Your task to perform on an android device: see tabs open on other devices in the chrome app Image 0: 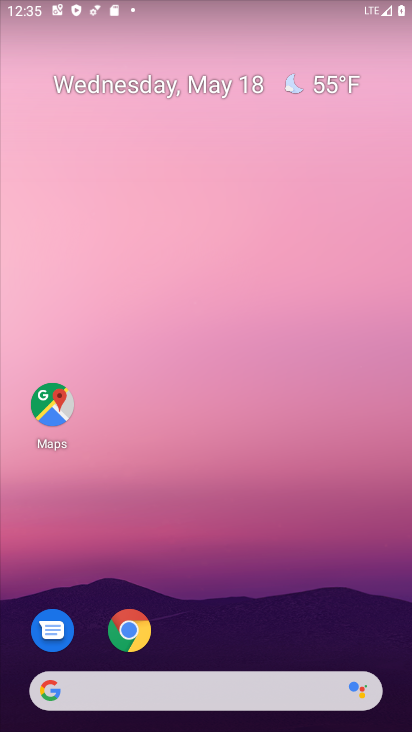
Step 0: click (136, 645)
Your task to perform on an android device: see tabs open on other devices in the chrome app Image 1: 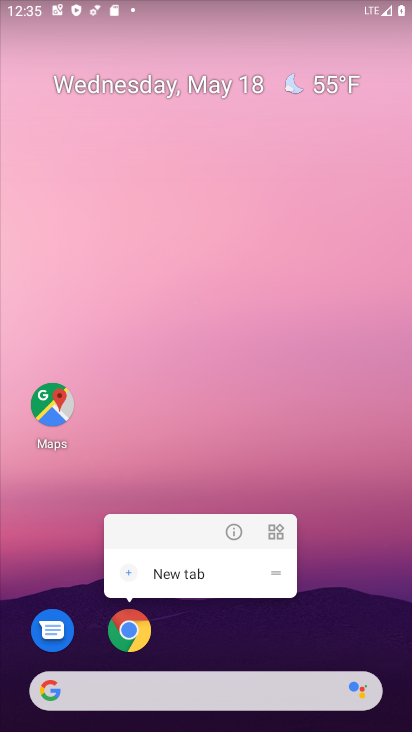
Step 1: click (129, 630)
Your task to perform on an android device: see tabs open on other devices in the chrome app Image 2: 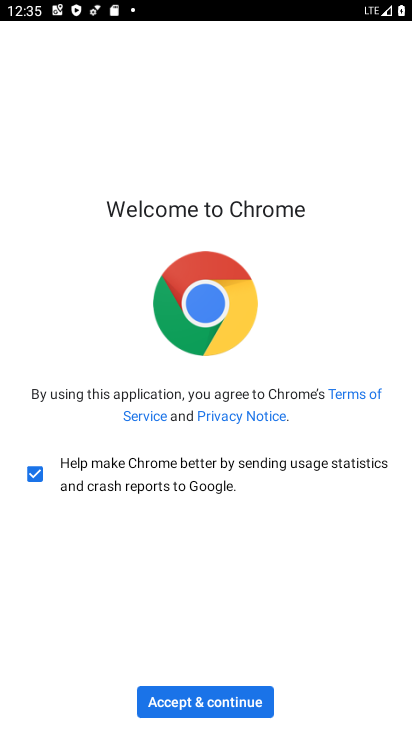
Step 2: click (227, 706)
Your task to perform on an android device: see tabs open on other devices in the chrome app Image 3: 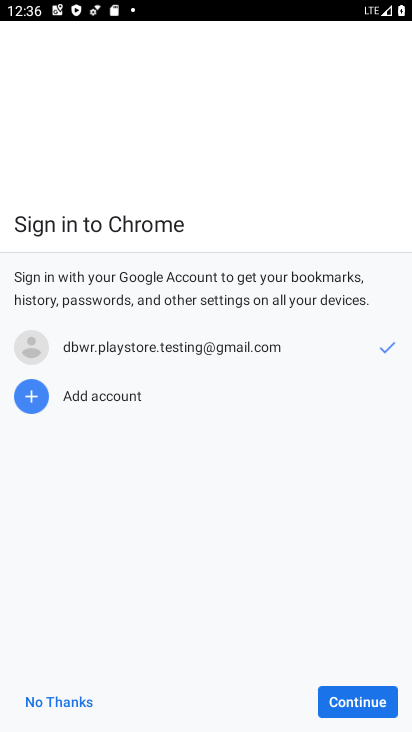
Step 3: click (370, 708)
Your task to perform on an android device: see tabs open on other devices in the chrome app Image 4: 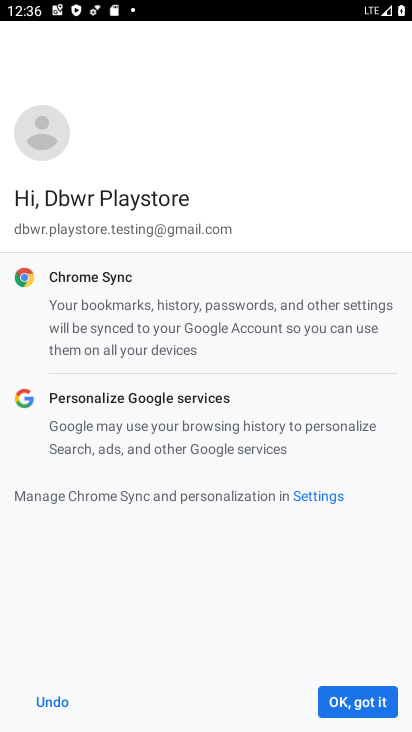
Step 4: click (370, 708)
Your task to perform on an android device: see tabs open on other devices in the chrome app Image 5: 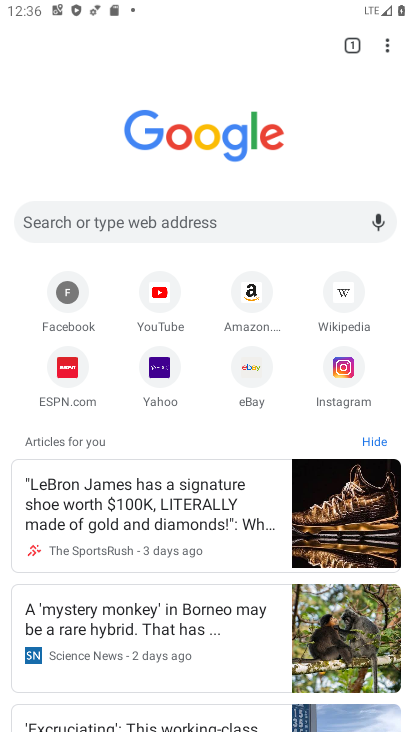
Step 5: drag from (389, 47) to (325, 228)
Your task to perform on an android device: see tabs open on other devices in the chrome app Image 6: 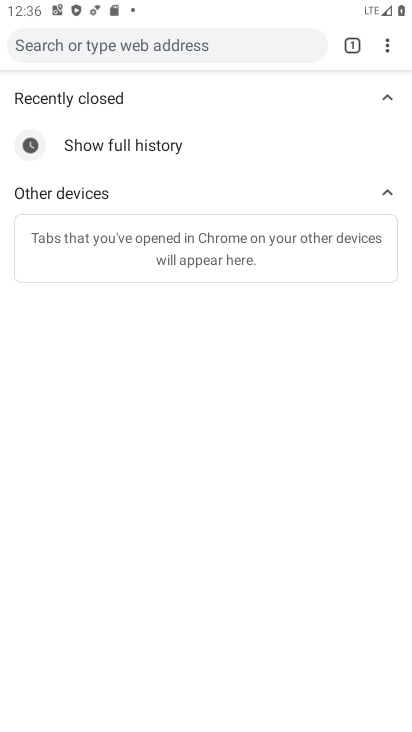
Step 6: click (325, 228)
Your task to perform on an android device: see tabs open on other devices in the chrome app Image 7: 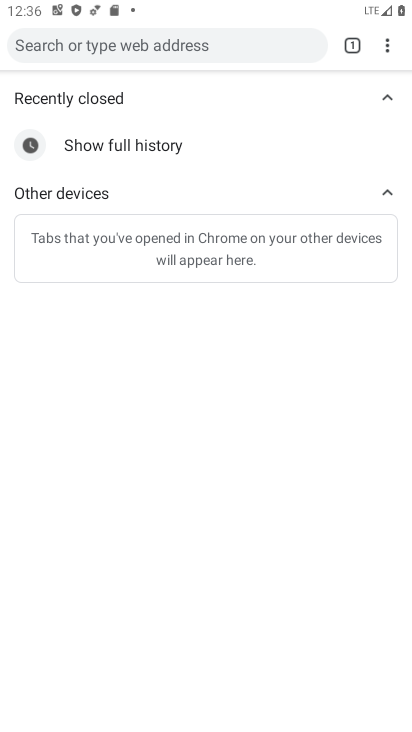
Step 7: task complete